Your task to perform on an android device: change notifications settings Image 0: 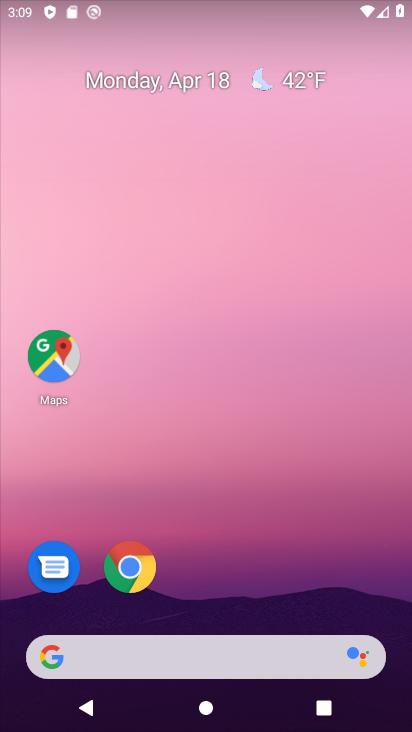
Step 0: click (281, 16)
Your task to perform on an android device: change notifications settings Image 1: 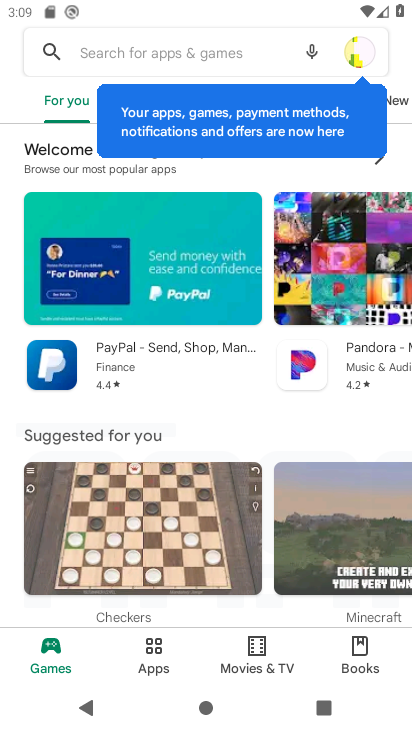
Step 1: press back button
Your task to perform on an android device: change notifications settings Image 2: 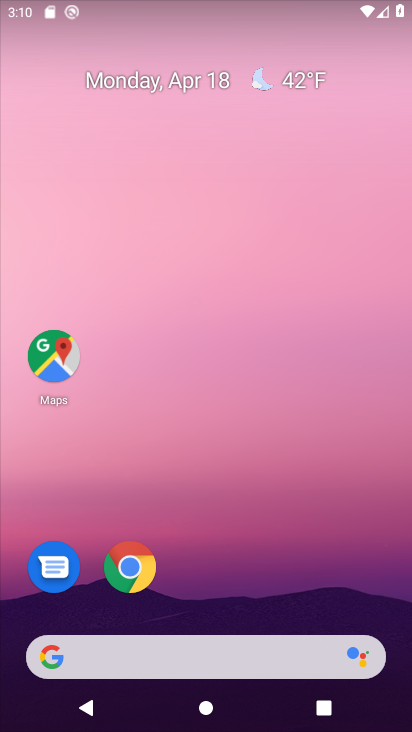
Step 2: drag from (196, 364) to (286, 68)
Your task to perform on an android device: change notifications settings Image 3: 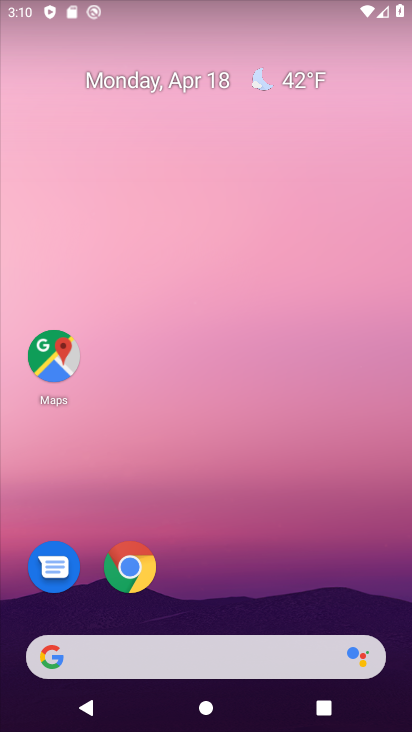
Step 3: drag from (242, 640) to (334, 112)
Your task to perform on an android device: change notifications settings Image 4: 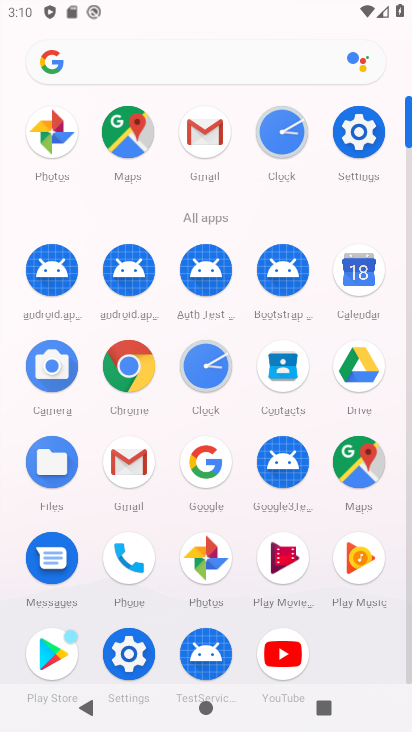
Step 4: click (127, 655)
Your task to perform on an android device: change notifications settings Image 5: 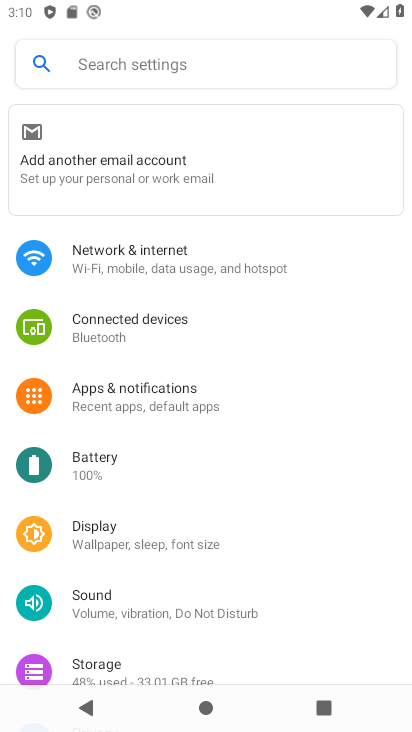
Step 5: click (189, 407)
Your task to perform on an android device: change notifications settings Image 6: 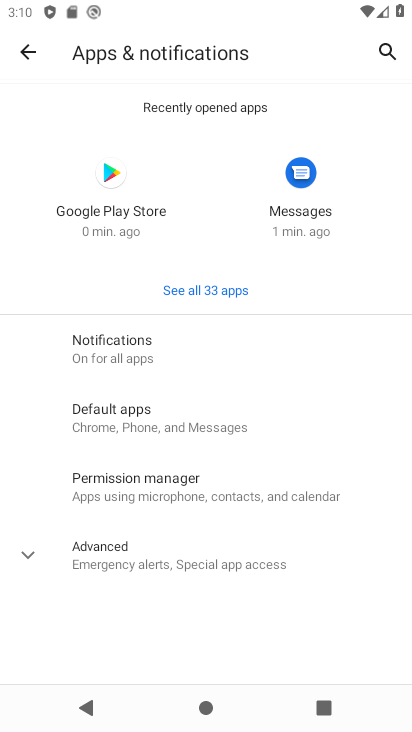
Step 6: click (176, 356)
Your task to perform on an android device: change notifications settings Image 7: 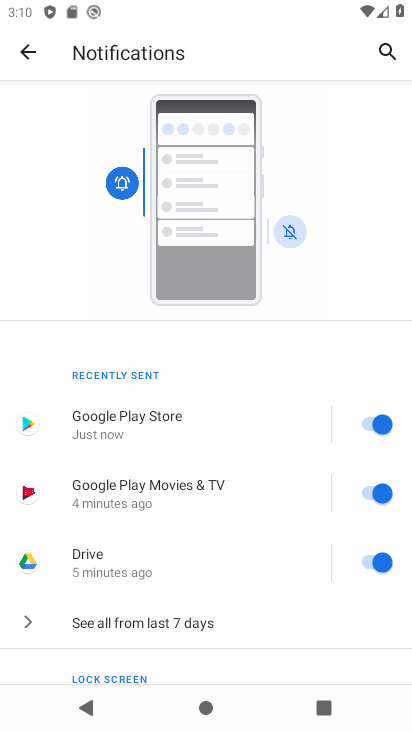
Step 7: drag from (190, 596) to (286, 202)
Your task to perform on an android device: change notifications settings Image 8: 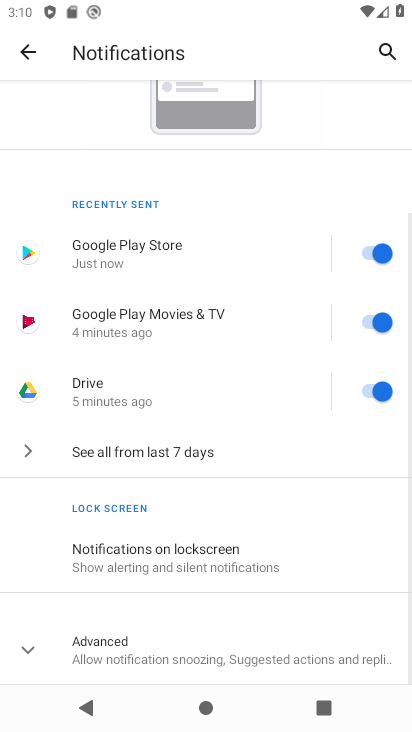
Step 8: click (166, 650)
Your task to perform on an android device: change notifications settings Image 9: 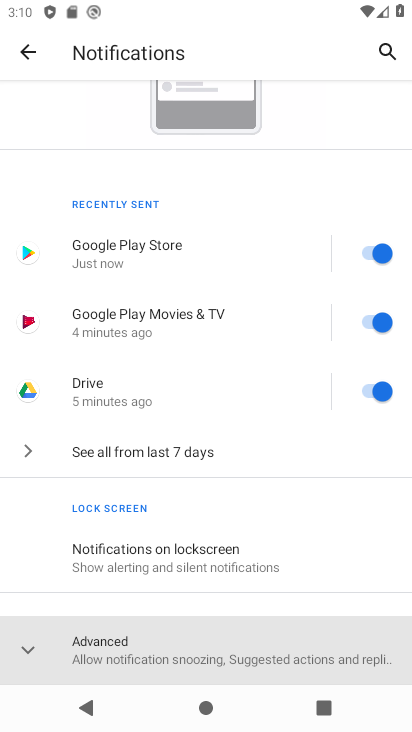
Step 9: drag from (186, 653) to (309, 242)
Your task to perform on an android device: change notifications settings Image 10: 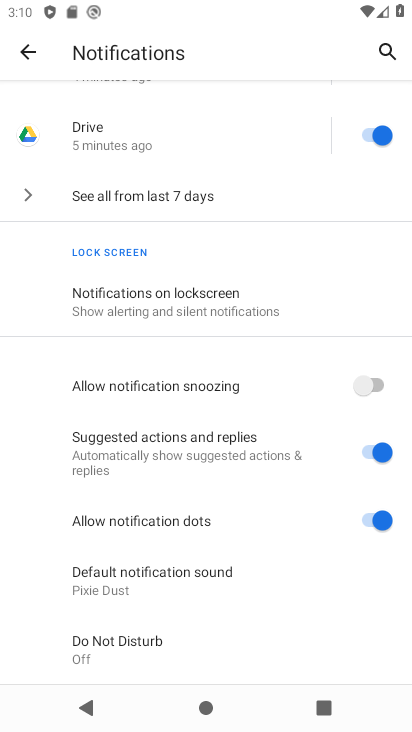
Step 10: click (380, 381)
Your task to perform on an android device: change notifications settings Image 11: 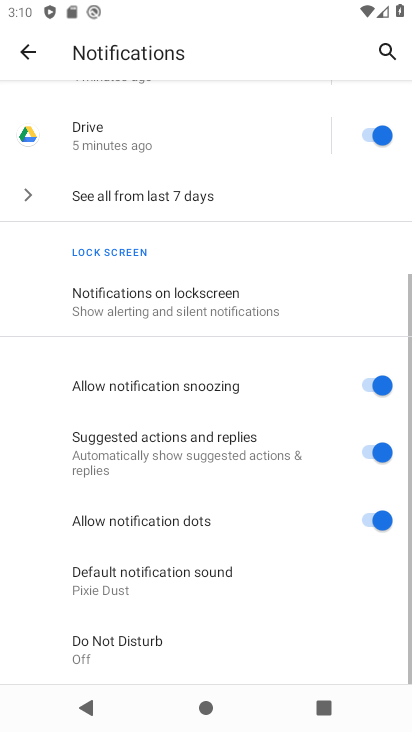
Step 11: click (375, 458)
Your task to perform on an android device: change notifications settings Image 12: 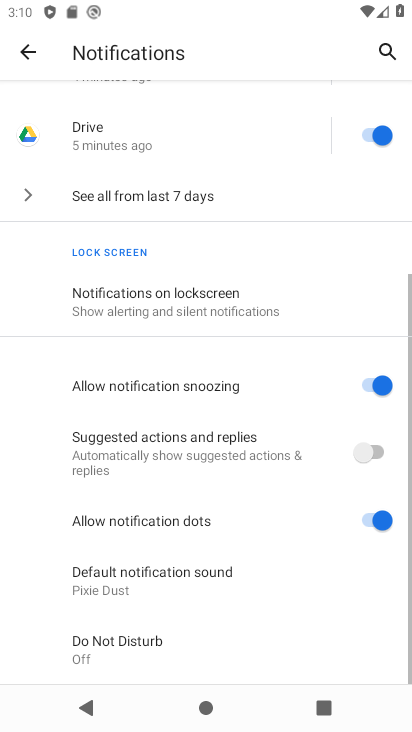
Step 12: click (371, 519)
Your task to perform on an android device: change notifications settings Image 13: 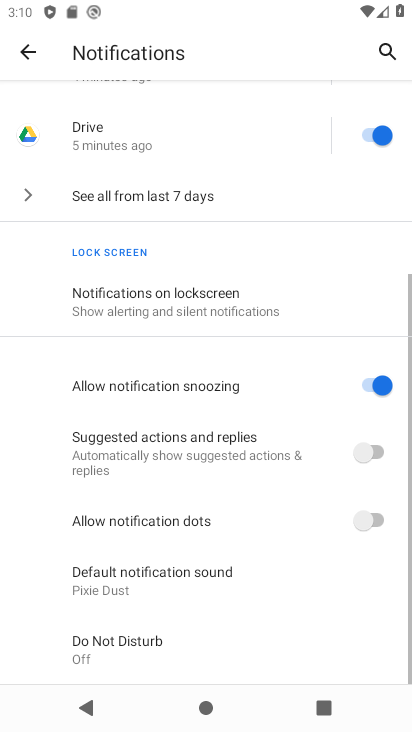
Step 13: click (140, 585)
Your task to perform on an android device: change notifications settings Image 14: 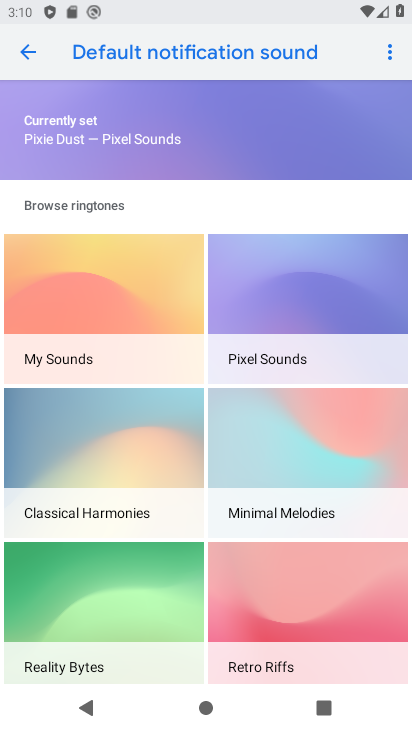
Step 14: click (143, 466)
Your task to perform on an android device: change notifications settings Image 15: 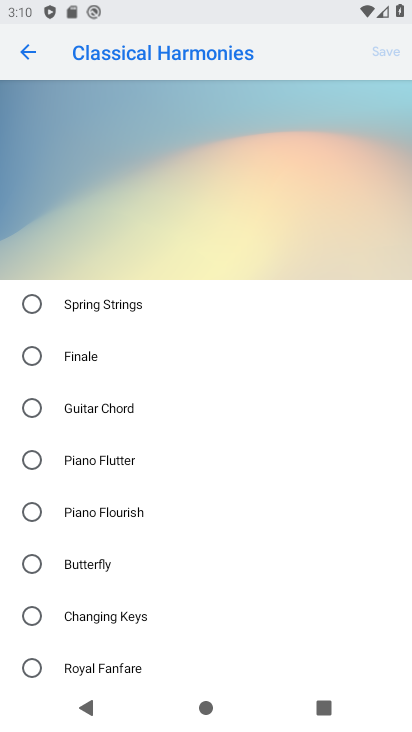
Step 15: click (161, 568)
Your task to perform on an android device: change notifications settings Image 16: 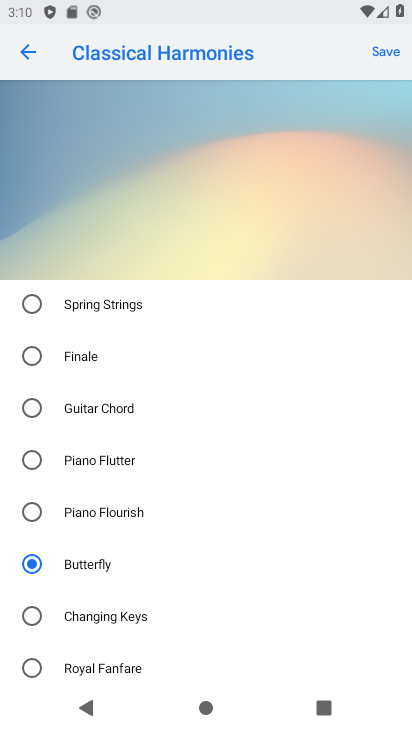
Step 16: click (395, 62)
Your task to perform on an android device: change notifications settings Image 17: 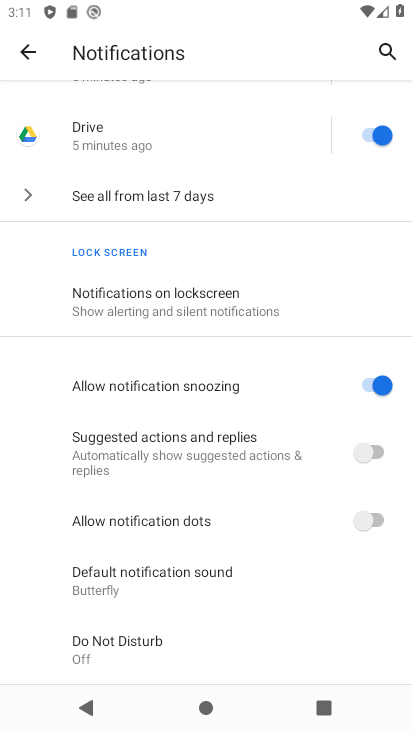
Step 17: task complete